Your task to perform on an android device: Open the Play Movies app and select the watchlist tab. Image 0: 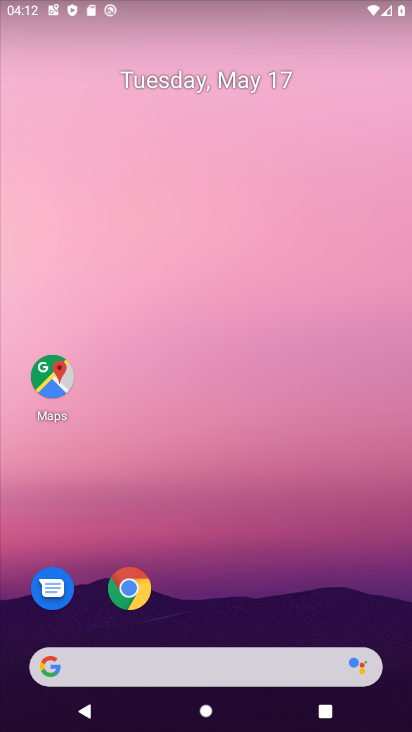
Step 0: drag from (271, 548) to (146, 76)
Your task to perform on an android device: Open the Play Movies app and select the watchlist tab. Image 1: 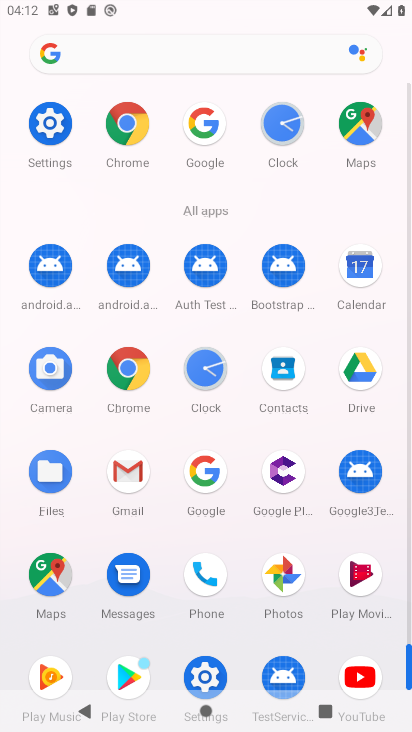
Step 1: drag from (255, 550) to (259, 310)
Your task to perform on an android device: Open the Play Movies app and select the watchlist tab. Image 2: 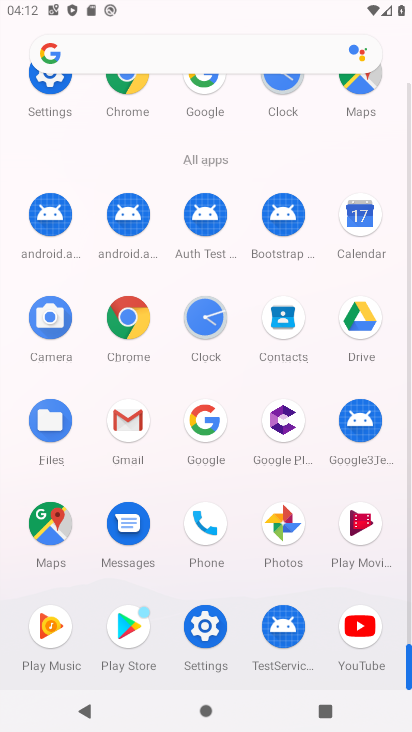
Step 2: click (365, 524)
Your task to perform on an android device: Open the Play Movies app and select the watchlist tab. Image 3: 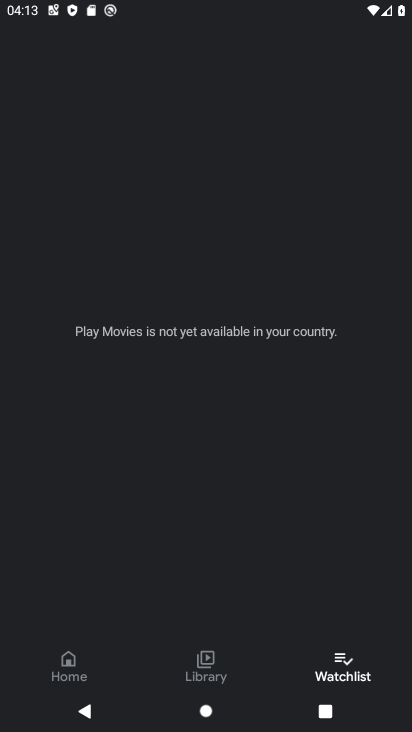
Step 3: click (346, 662)
Your task to perform on an android device: Open the Play Movies app and select the watchlist tab. Image 4: 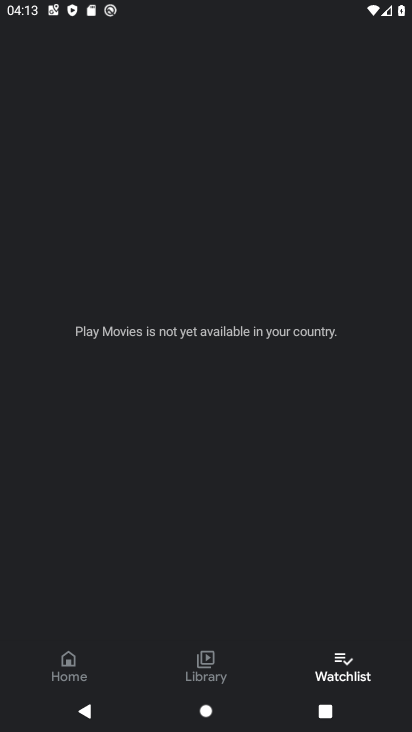
Step 4: task complete